Your task to perform on an android device: Open calendar and show me the third week of next month Image 0: 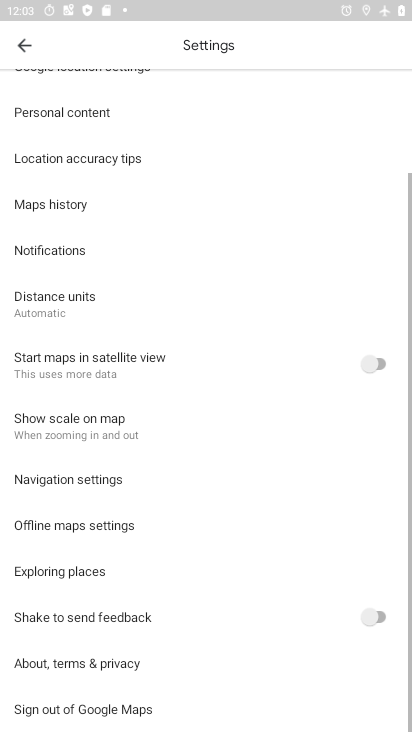
Step 0: press home button
Your task to perform on an android device: Open calendar and show me the third week of next month Image 1: 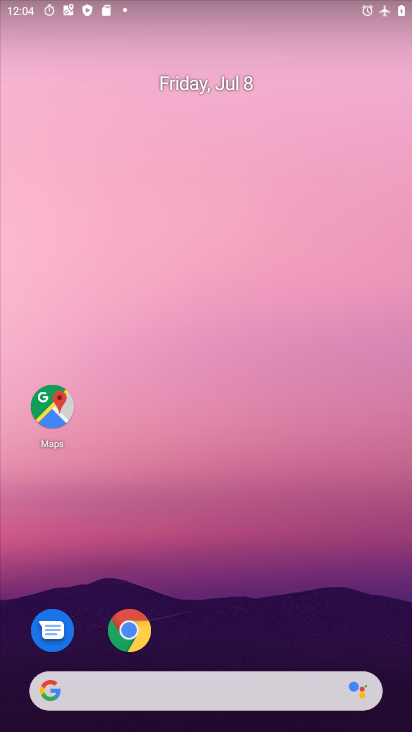
Step 1: drag from (217, 613) to (219, 182)
Your task to perform on an android device: Open calendar and show me the third week of next month Image 2: 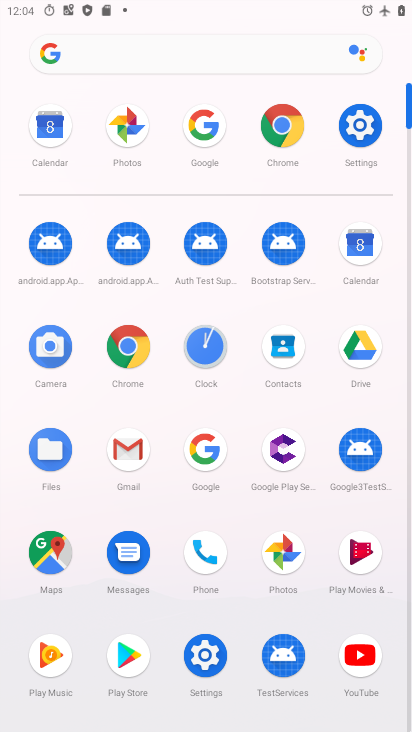
Step 2: click (362, 260)
Your task to perform on an android device: Open calendar and show me the third week of next month Image 3: 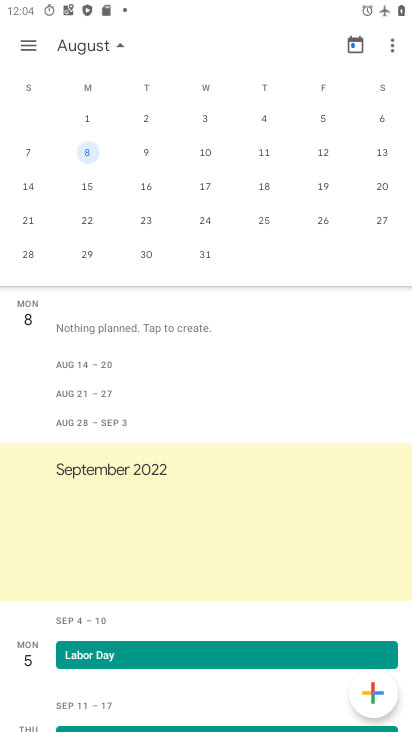
Step 3: click (79, 184)
Your task to perform on an android device: Open calendar and show me the third week of next month Image 4: 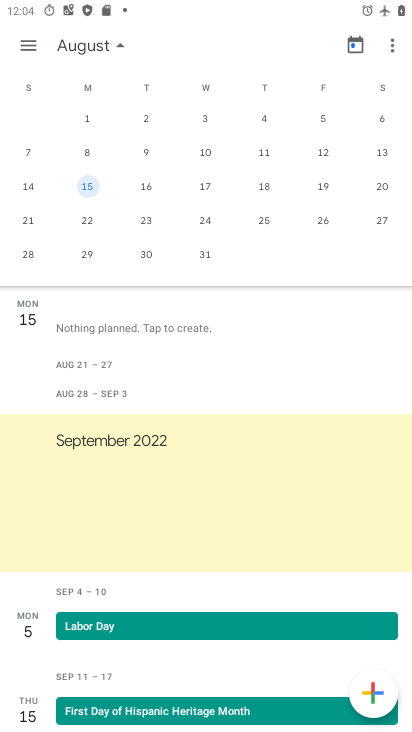
Step 4: click (36, 188)
Your task to perform on an android device: Open calendar and show me the third week of next month Image 5: 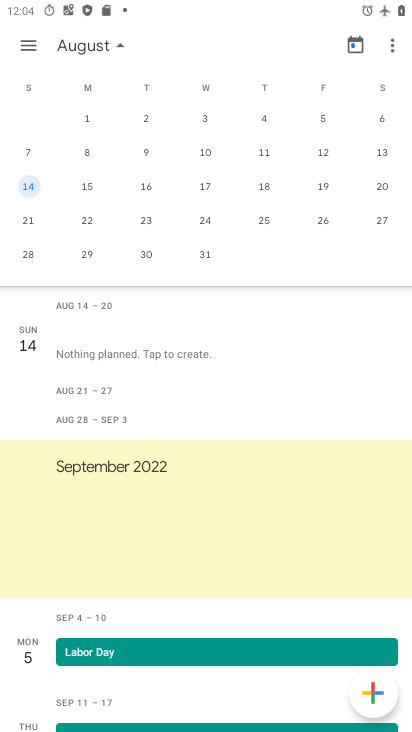
Step 5: click (39, 49)
Your task to perform on an android device: Open calendar and show me the third week of next month Image 6: 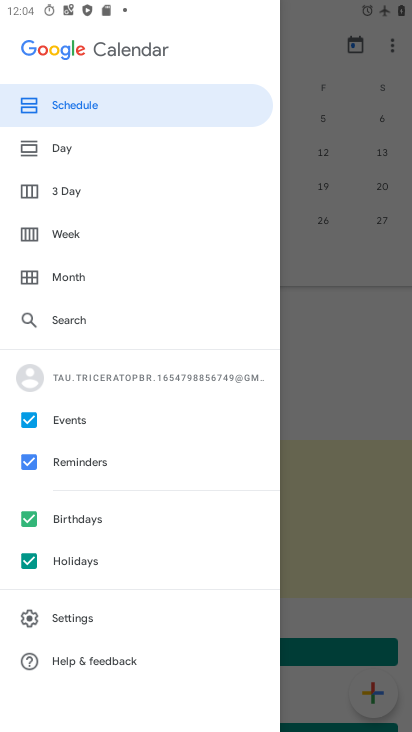
Step 6: click (303, 385)
Your task to perform on an android device: Open calendar and show me the third week of next month Image 7: 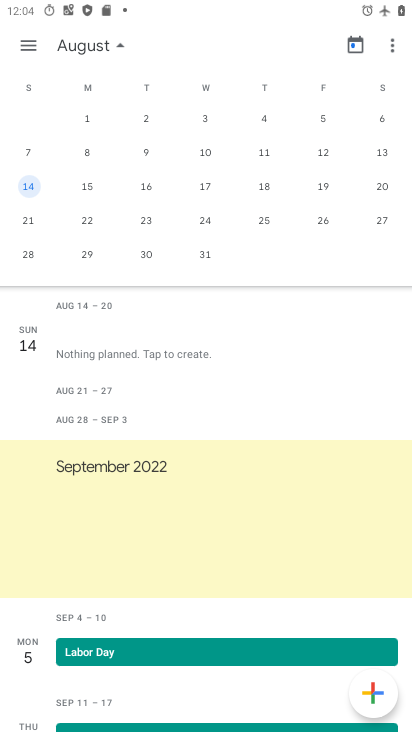
Step 7: task complete